Your task to perform on an android device: find photos in the google photos app Image 0: 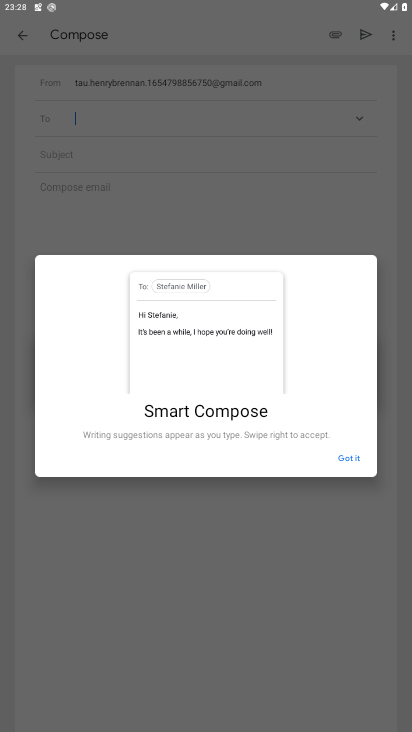
Step 0: press home button
Your task to perform on an android device: find photos in the google photos app Image 1: 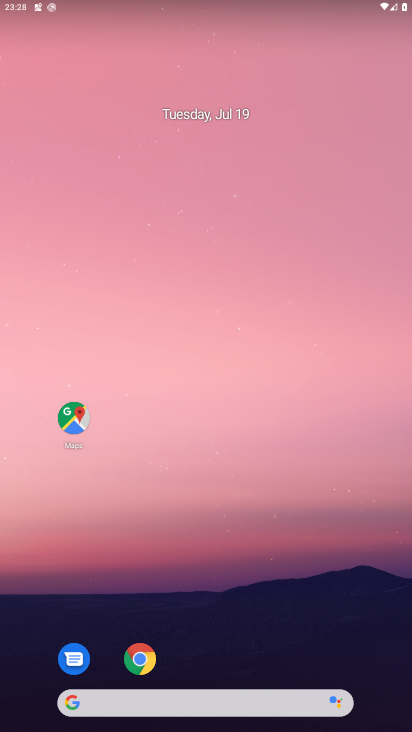
Step 1: drag from (314, 589) to (271, 72)
Your task to perform on an android device: find photos in the google photos app Image 2: 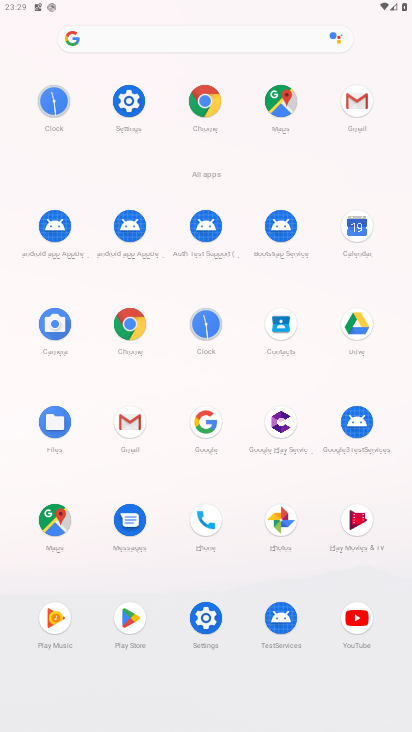
Step 2: click (282, 521)
Your task to perform on an android device: find photos in the google photos app Image 3: 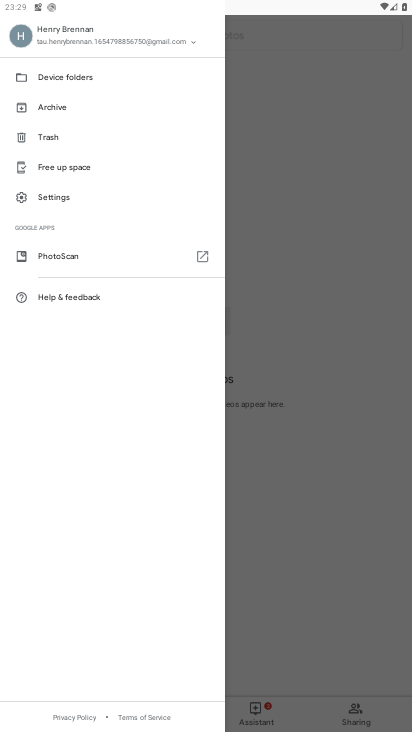
Step 3: click (273, 259)
Your task to perform on an android device: find photos in the google photos app Image 4: 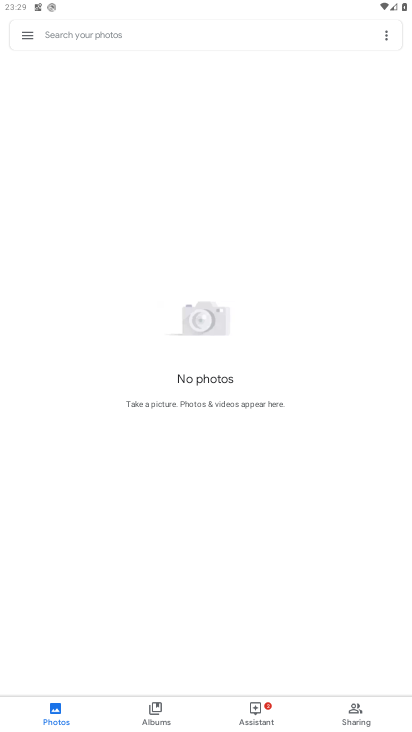
Step 4: task complete